Your task to perform on an android device: install app "Google Docs" Image 0: 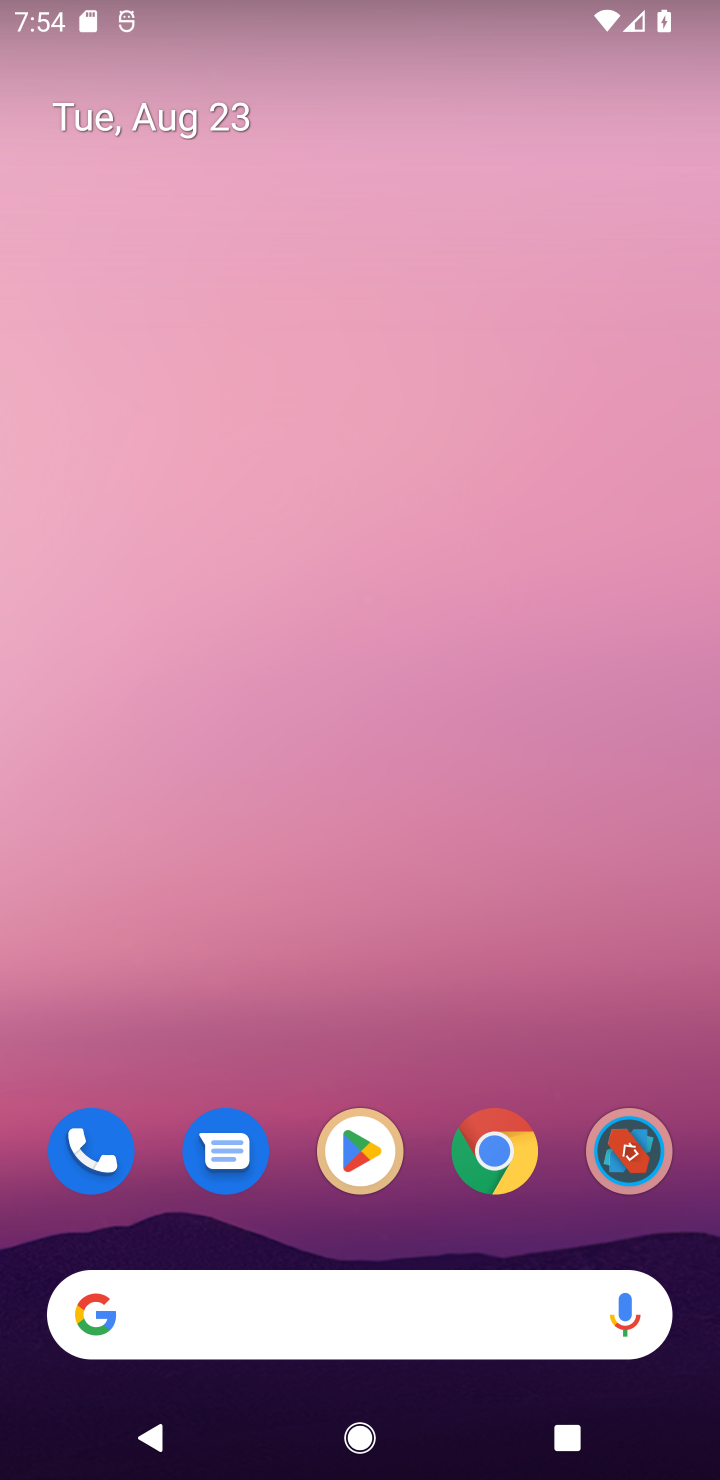
Step 0: press home button
Your task to perform on an android device: install app "Google Docs" Image 1: 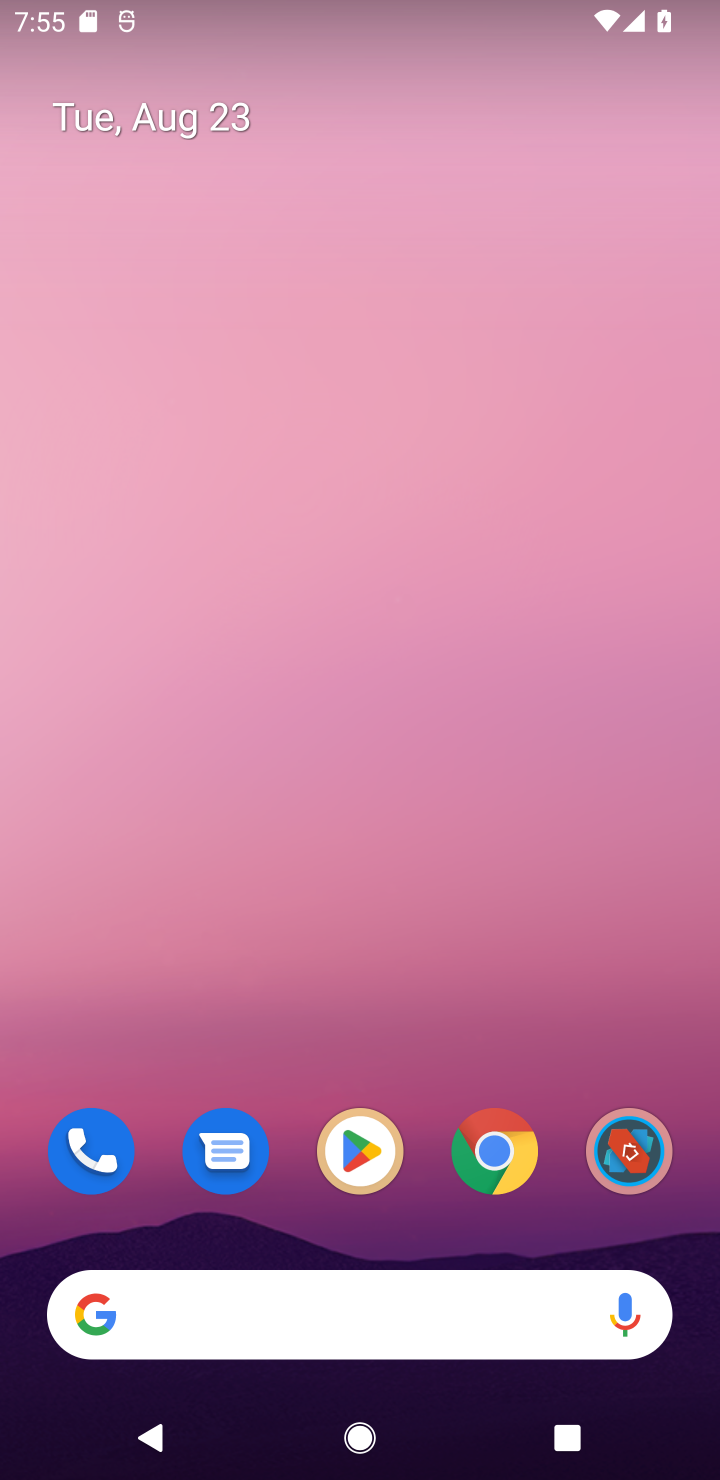
Step 1: click (355, 1144)
Your task to perform on an android device: install app "Google Docs" Image 2: 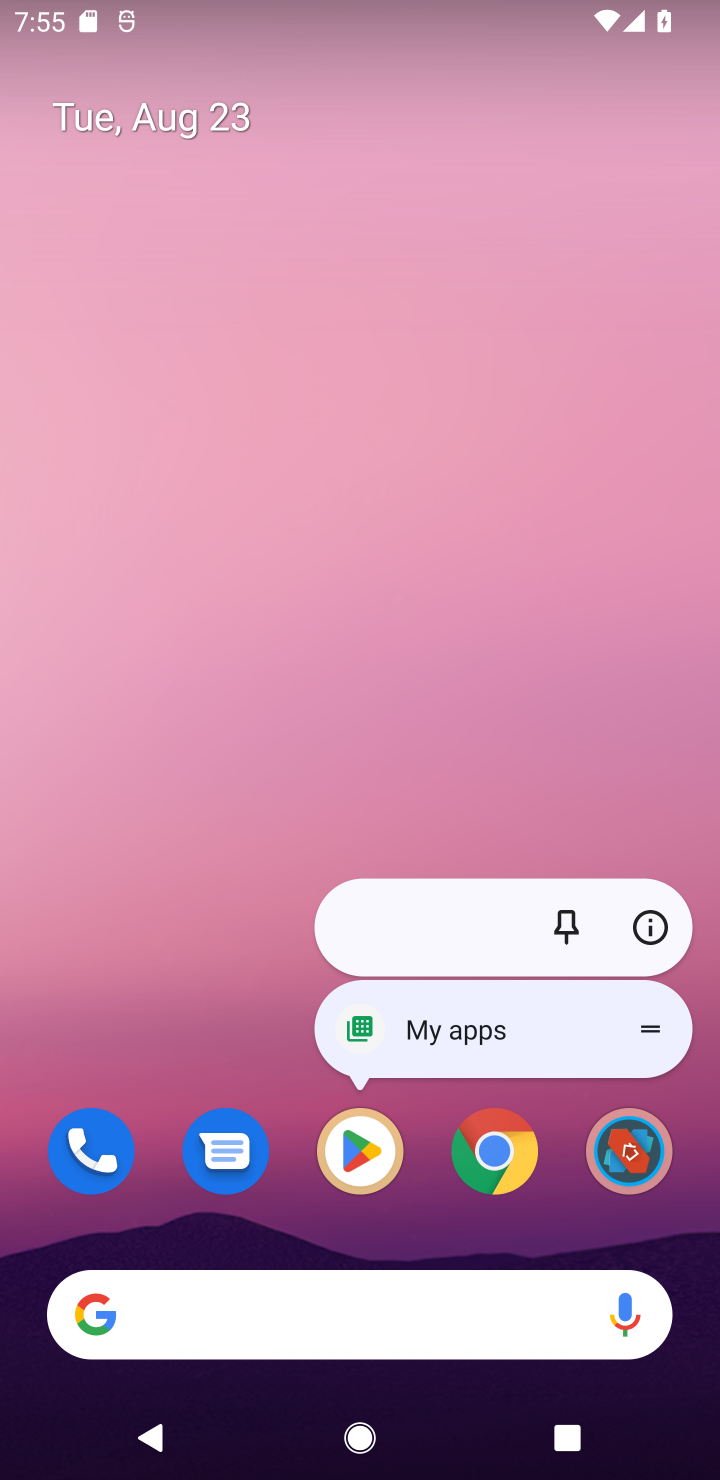
Step 2: click (360, 1142)
Your task to perform on an android device: install app "Google Docs" Image 3: 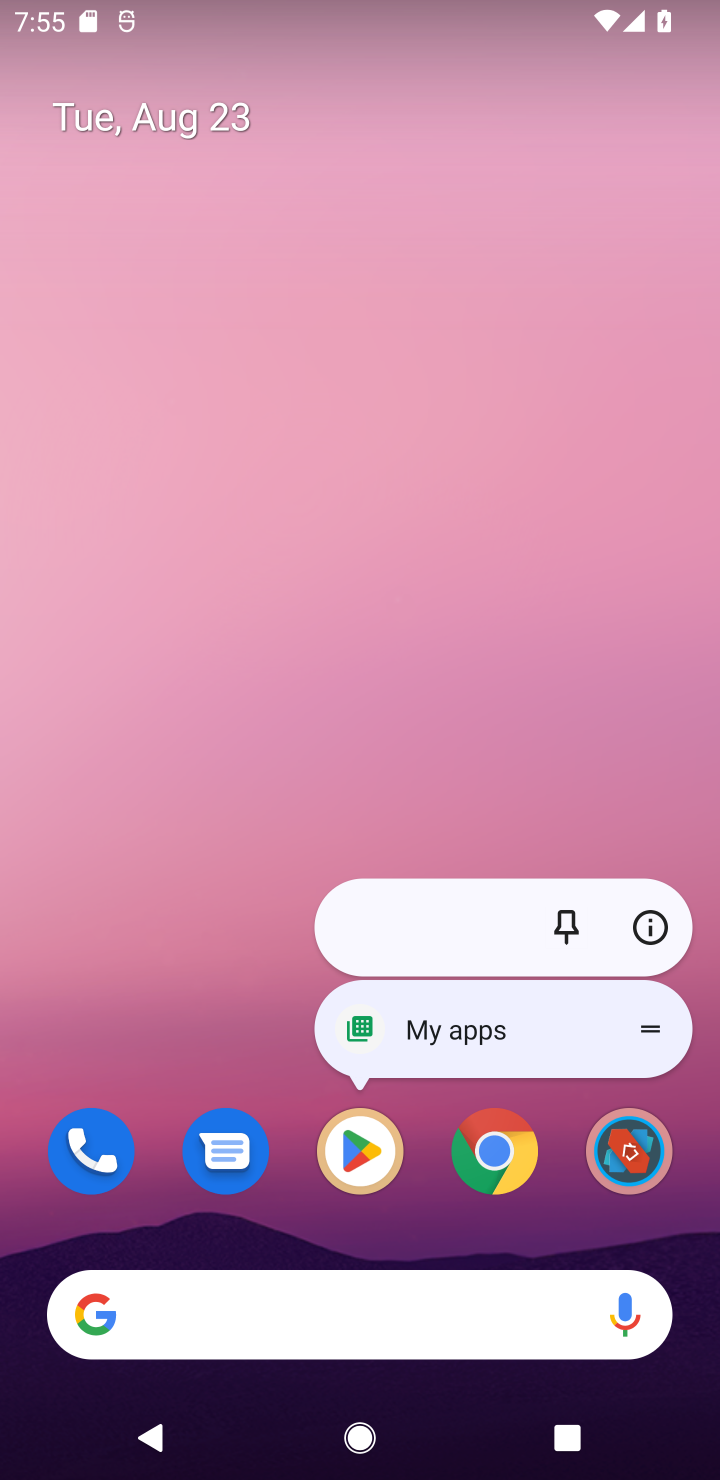
Step 3: click (359, 1134)
Your task to perform on an android device: install app "Google Docs" Image 4: 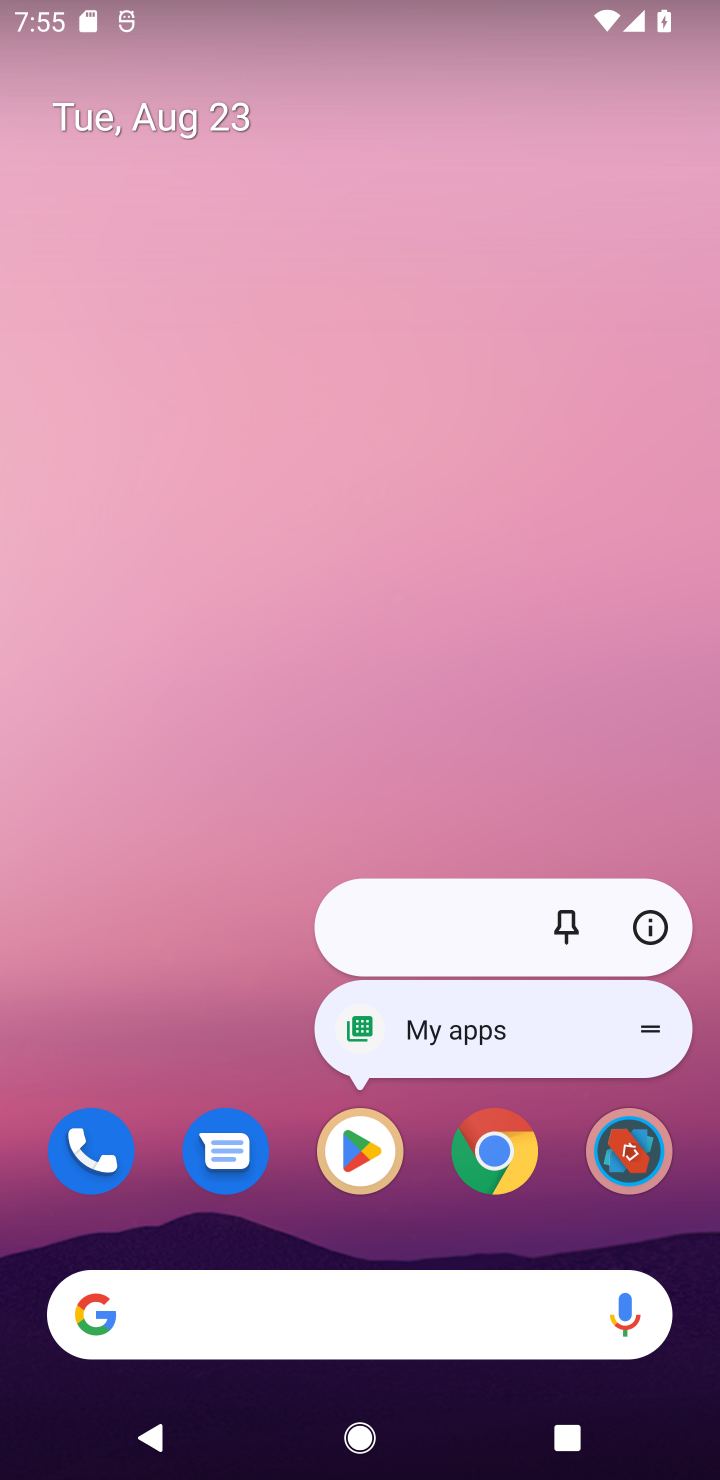
Step 4: click (360, 1146)
Your task to perform on an android device: install app "Google Docs" Image 5: 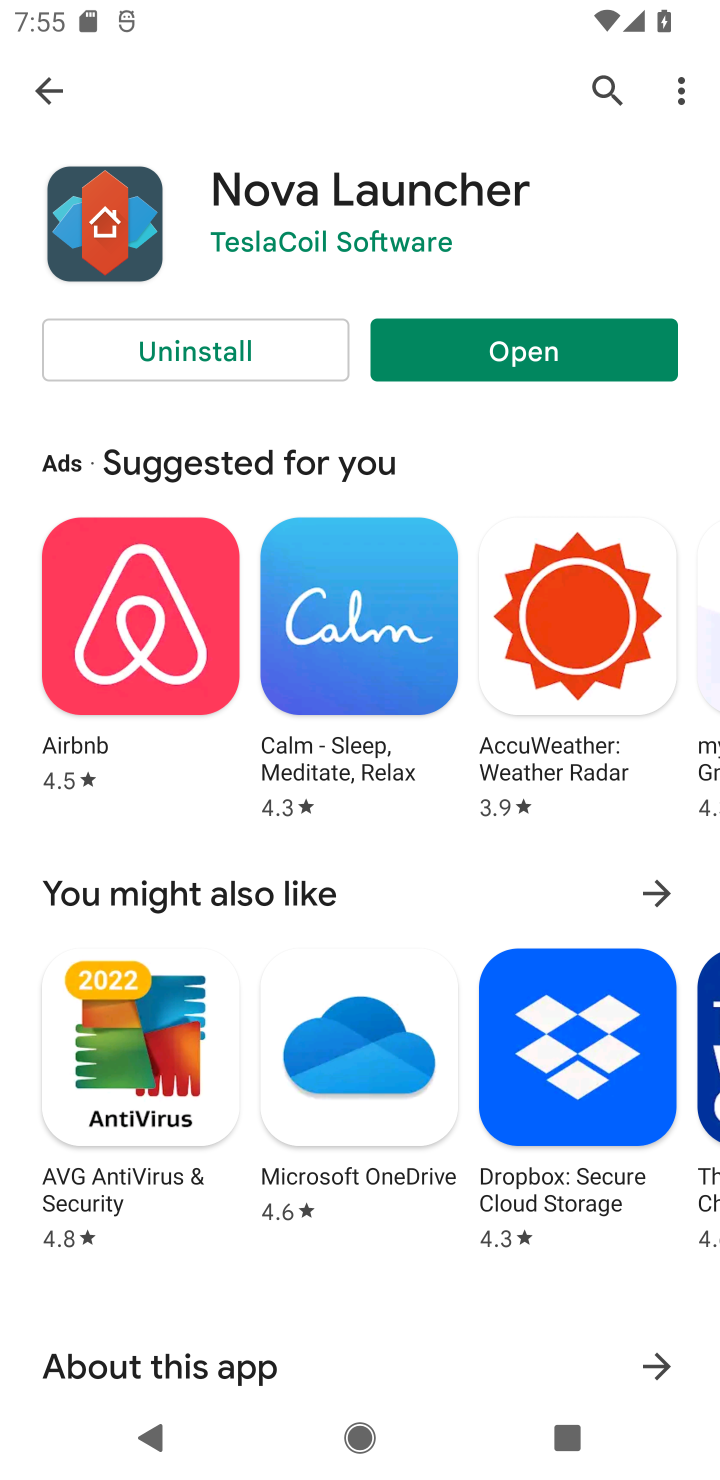
Step 5: click (597, 72)
Your task to perform on an android device: install app "Google Docs" Image 6: 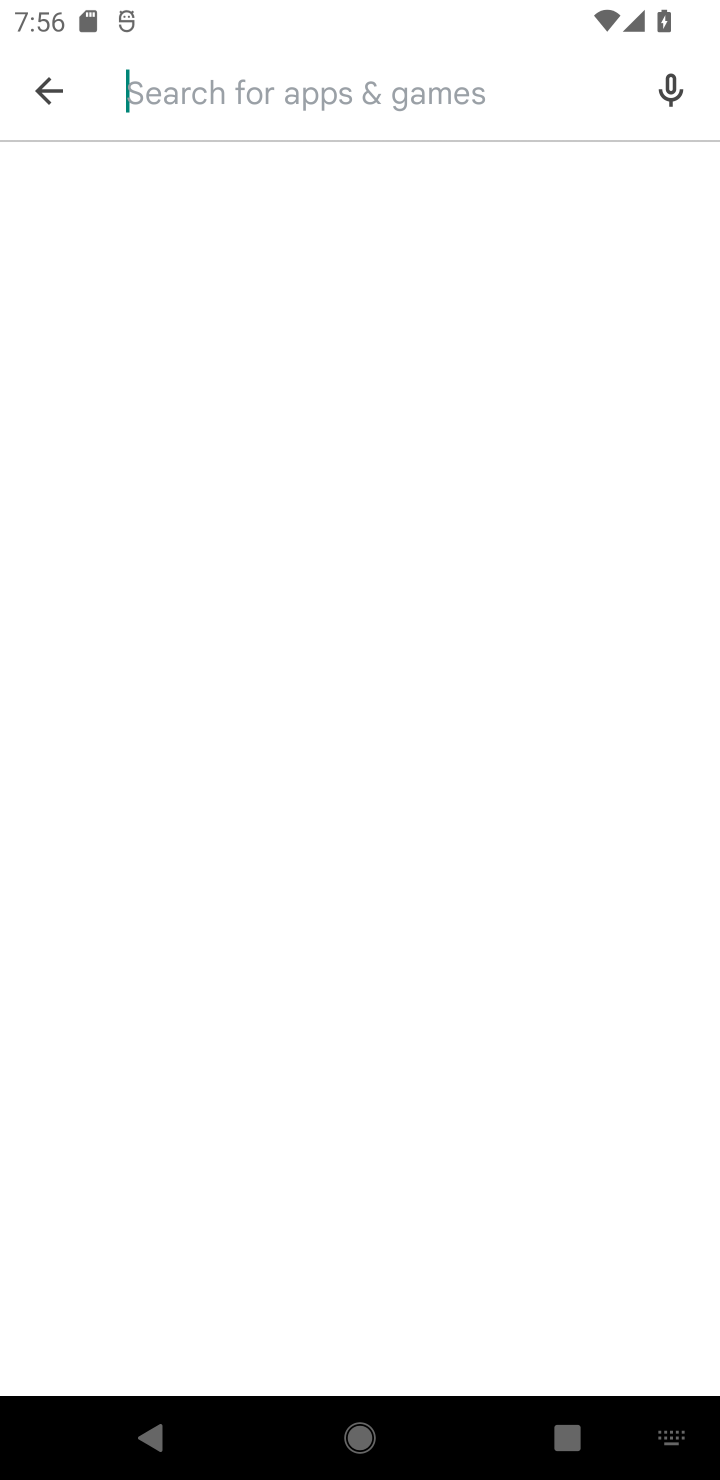
Step 6: type "Google Docs"
Your task to perform on an android device: install app "Google Docs" Image 7: 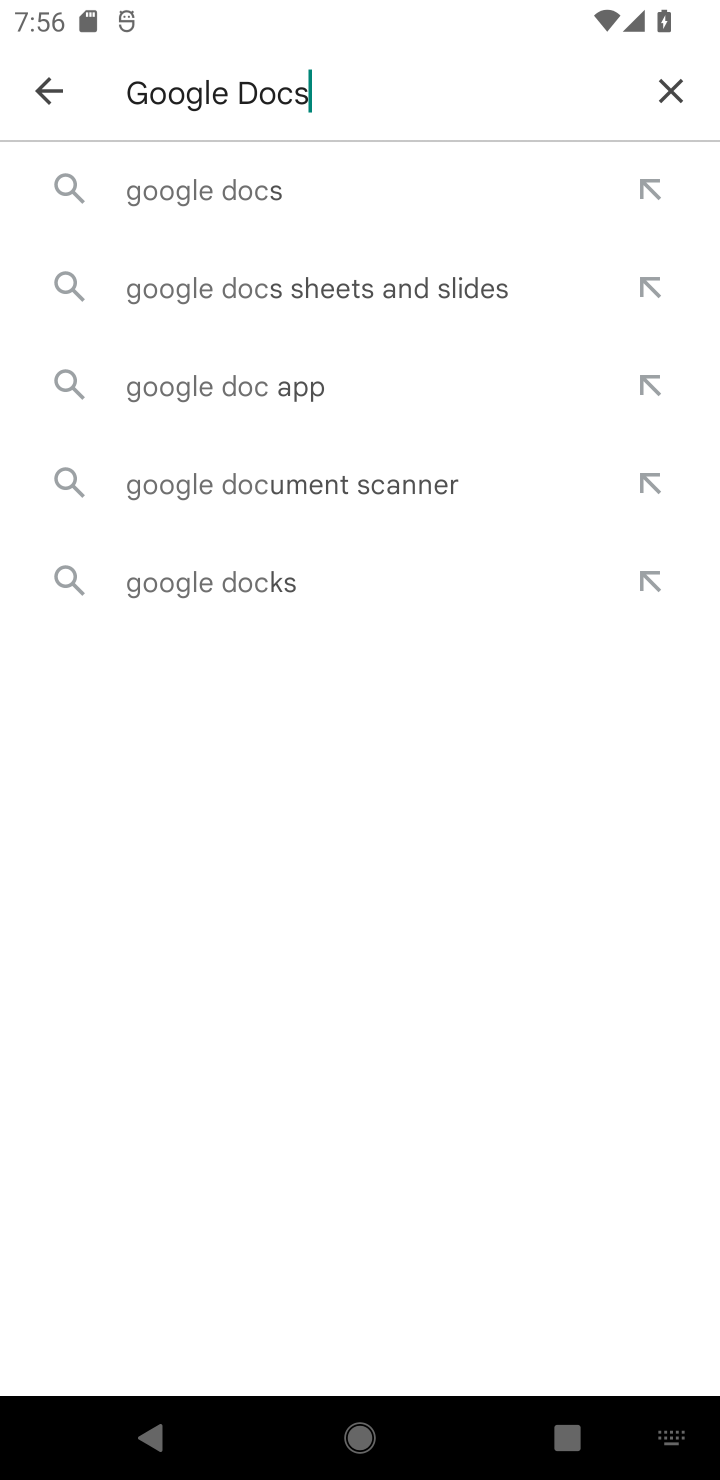
Step 7: type ""
Your task to perform on an android device: install app "Google Docs" Image 8: 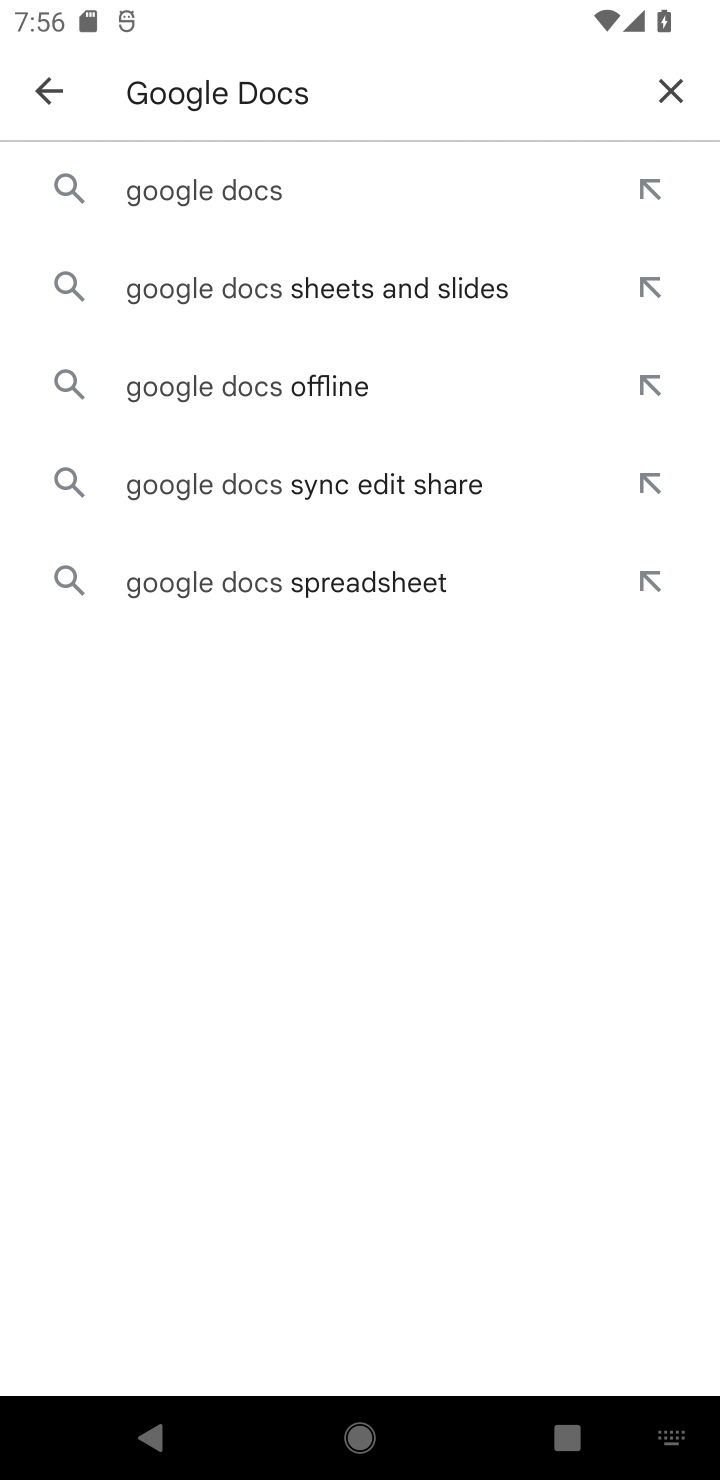
Step 8: click (264, 189)
Your task to perform on an android device: install app "Google Docs" Image 9: 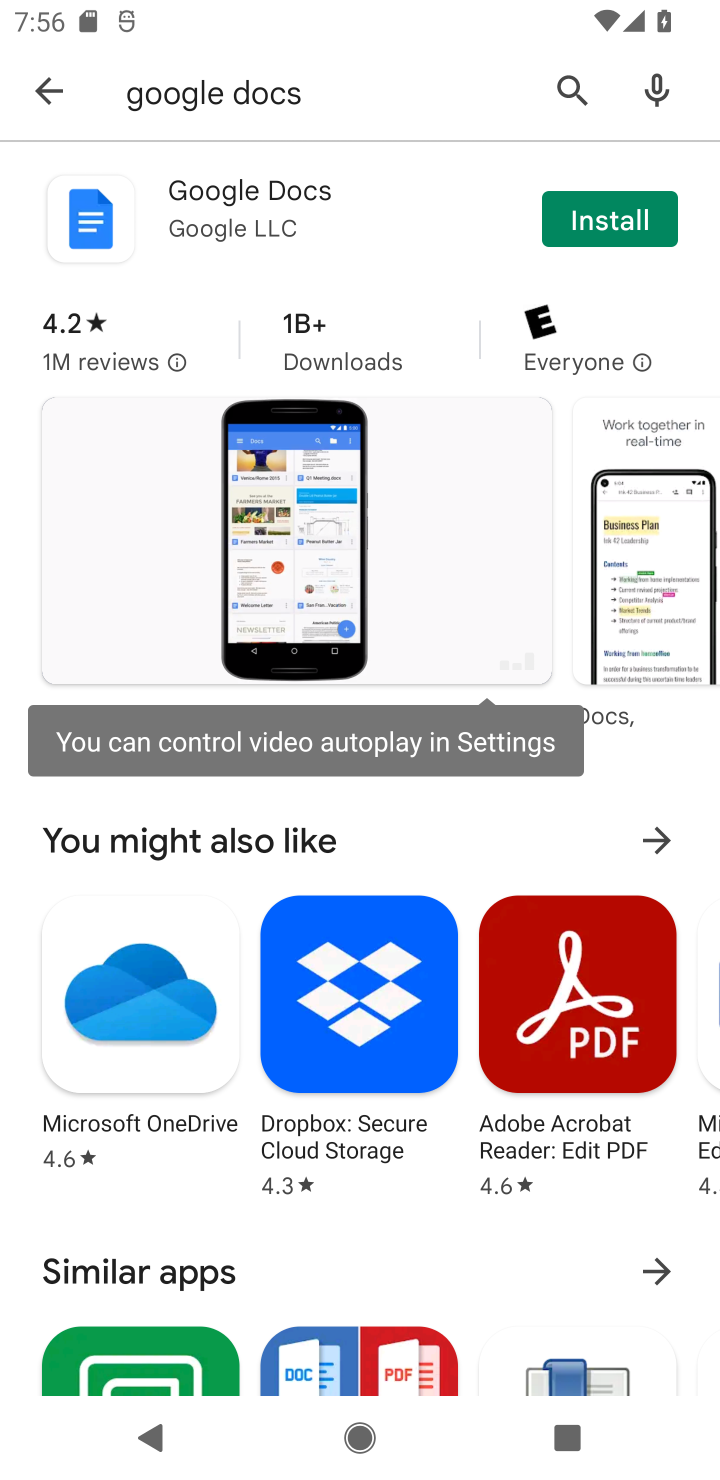
Step 9: click (622, 211)
Your task to perform on an android device: install app "Google Docs" Image 10: 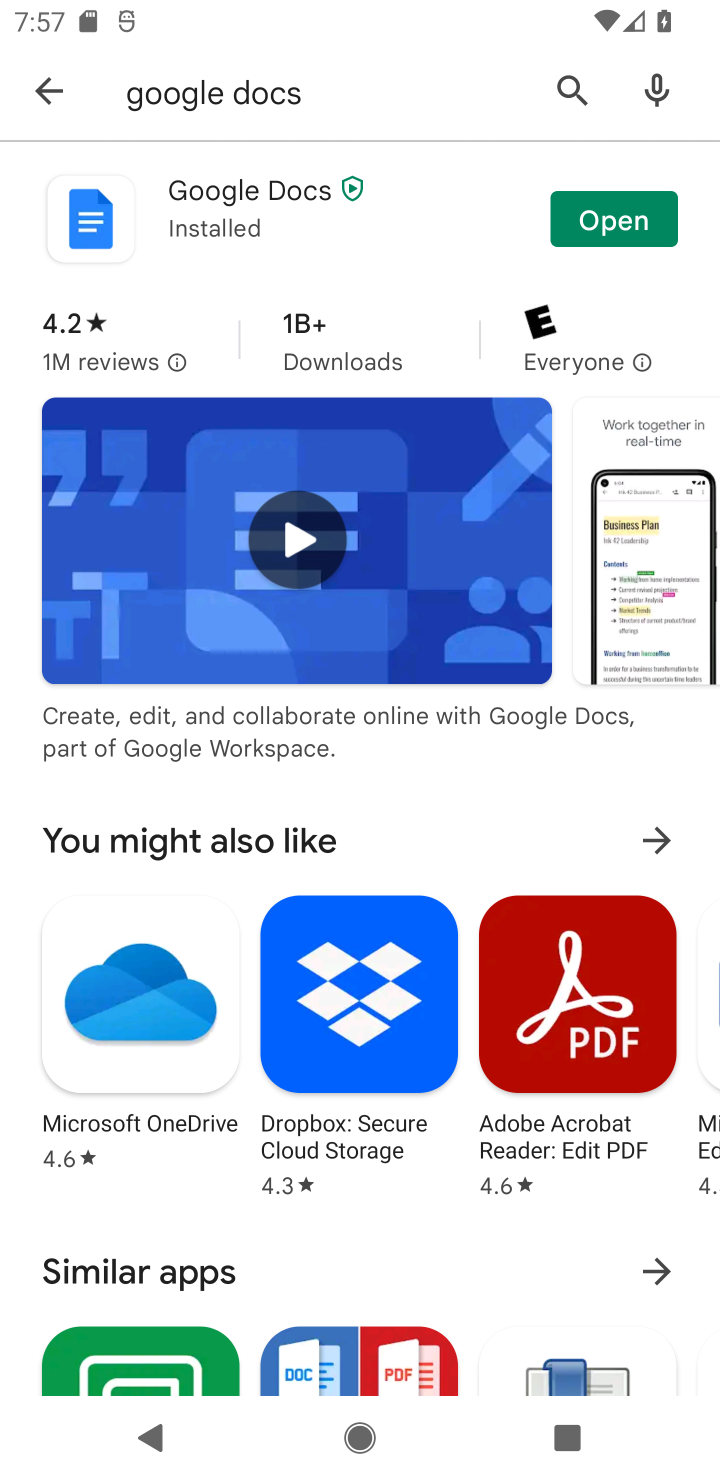
Step 10: click (619, 225)
Your task to perform on an android device: install app "Google Docs" Image 11: 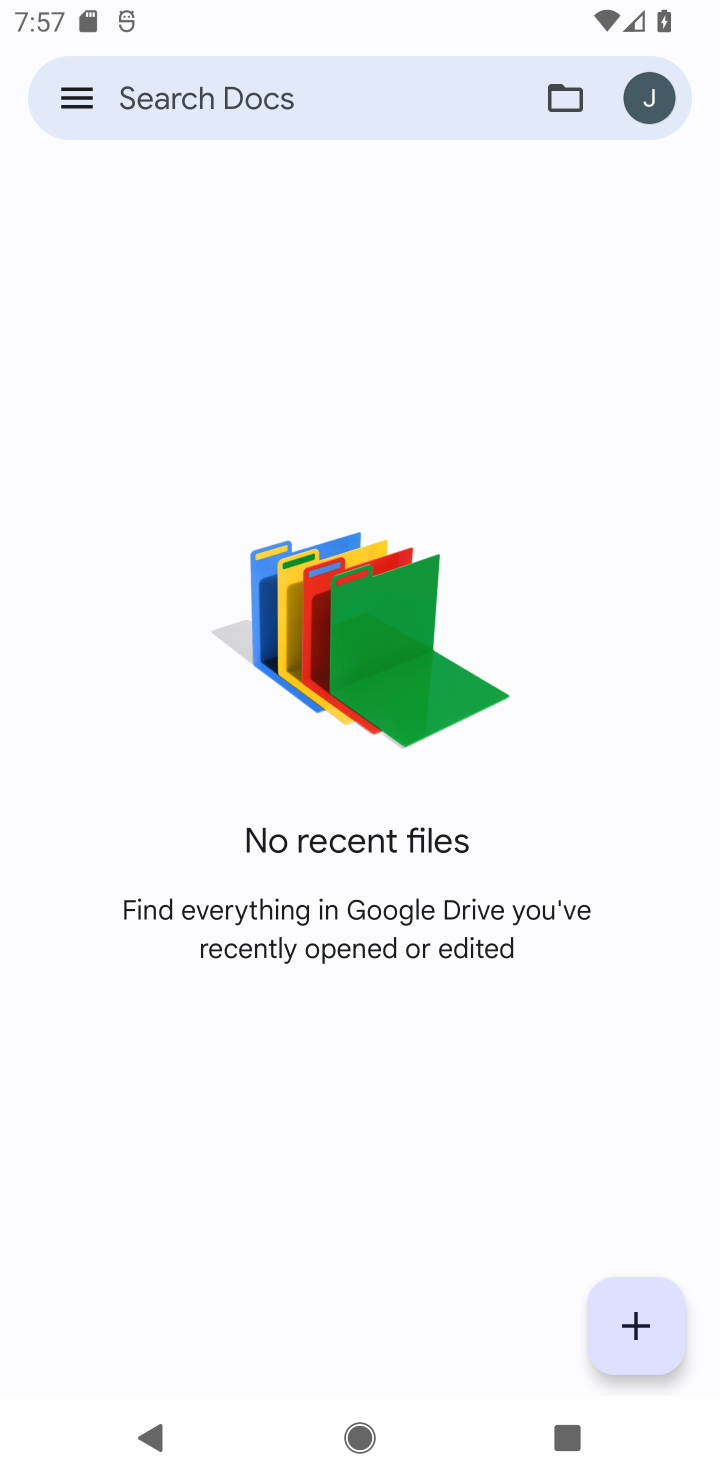
Step 11: task complete